Your task to perform on an android device: Open Google Maps Image 0: 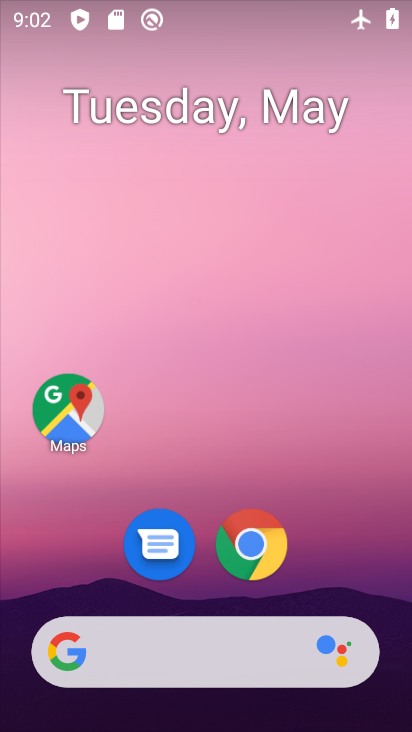
Step 0: drag from (336, 531) to (324, 142)
Your task to perform on an android device: Open Google Maps Image 1: 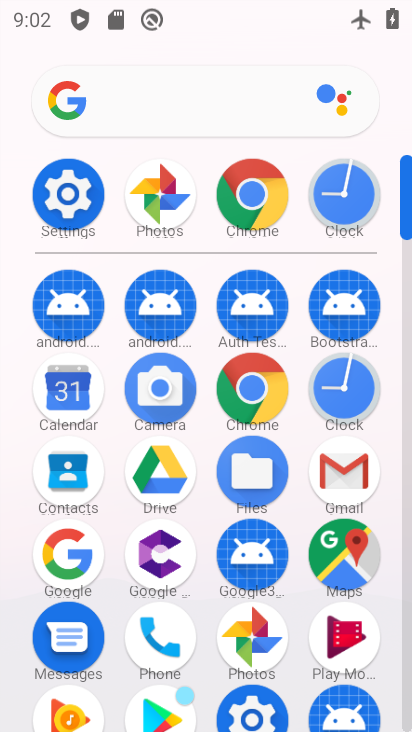
Step 1: click (337, 545)
Your task to perform on an android device: Open Google Maps Image 2: 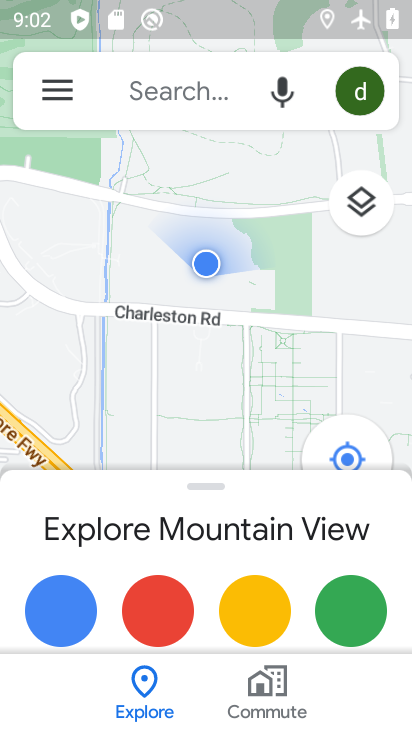
Step 2: task complete